Your task to perform on an android device: open app "Reddit" (install if not already installed) Image 0: 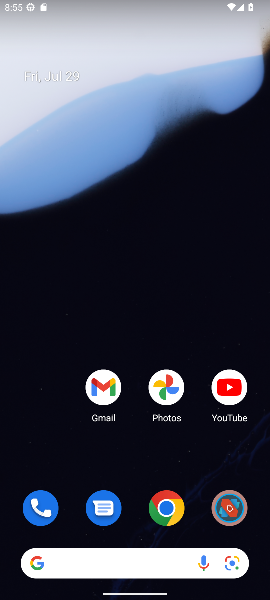
Step 0: drag from (134, 528) to (188, 5)
Your task to perform on an android device: open app "Reddit" (install if not already installed) Image 1: 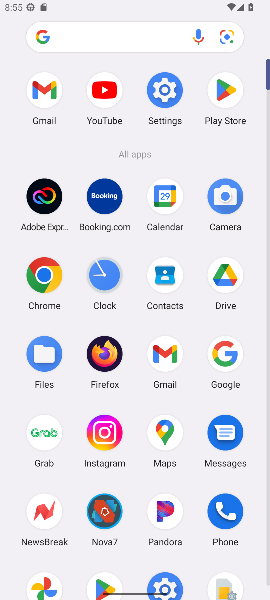
Step 1: click (220, 80)
Your task to perform on an android device: open app "Reddit" (install if not already installed) Image 2: 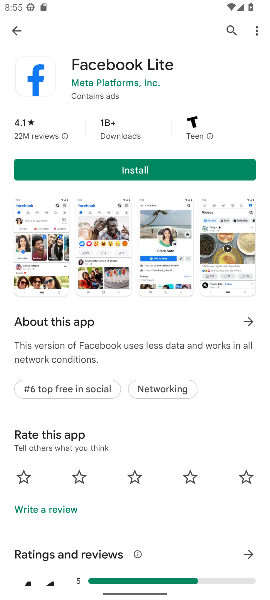
Step 2: click (228, 26)
Your task to perform on an android device: open app "Reddit" (install if not already installed) Image 3: 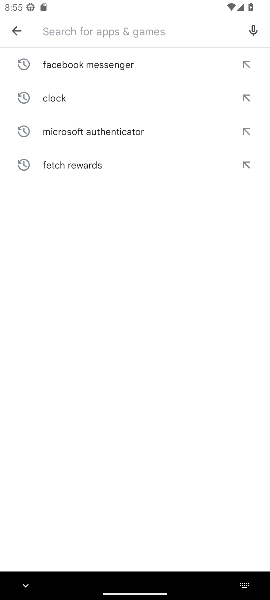
Step 3: type "Reddit"
Your task to perform on an android device: open app "Reddit" (install if not already installed) Image 4: 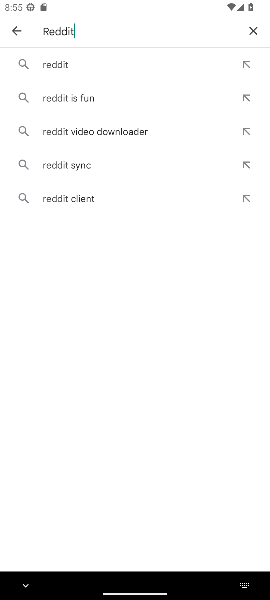
Step 4: click (204, 58)
Your task to perform on an android device: open app "Reddit" (install if not already installed) Image 5: 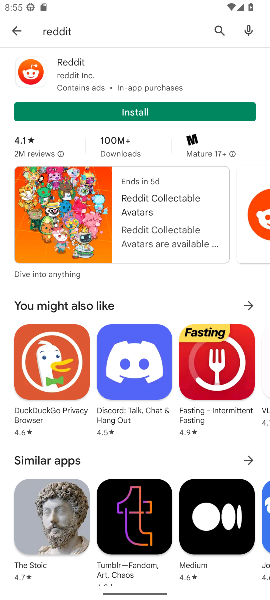
Step 5: click (206, 113)
Your task to perform on an android device: open app "Reddit" (install if not already installed) Image 6: 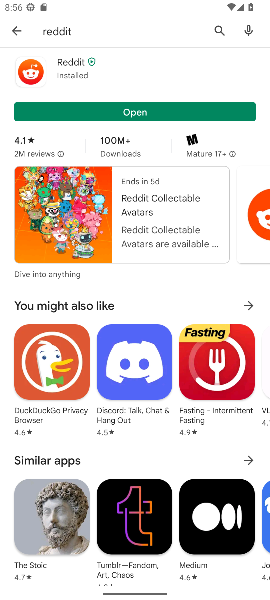
Step 6: click (206, 113)
Your task to perform on an android device: open app "Reddit" (install if not already installed) Image 7: 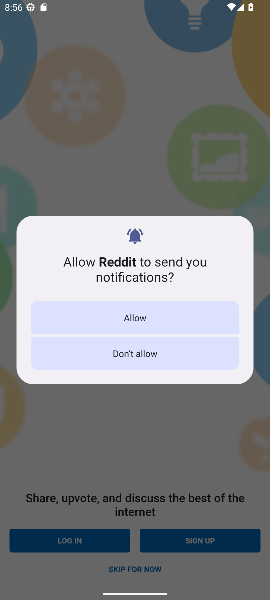
Step 7: task complete